Your task to perform on an android device: Add "razer thresher" to the cart on amazon.com Image 0: 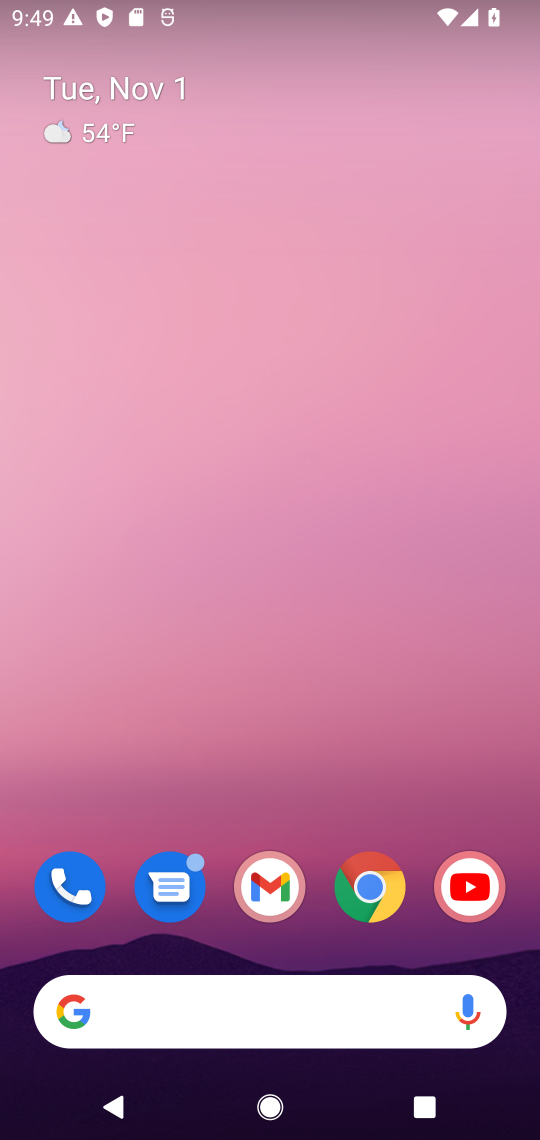
Step 0: drag from (265, 937) to (307, 210)
Your task to perform on an android device: Add "razer thresher" to the cart on amazon.com Image 1: 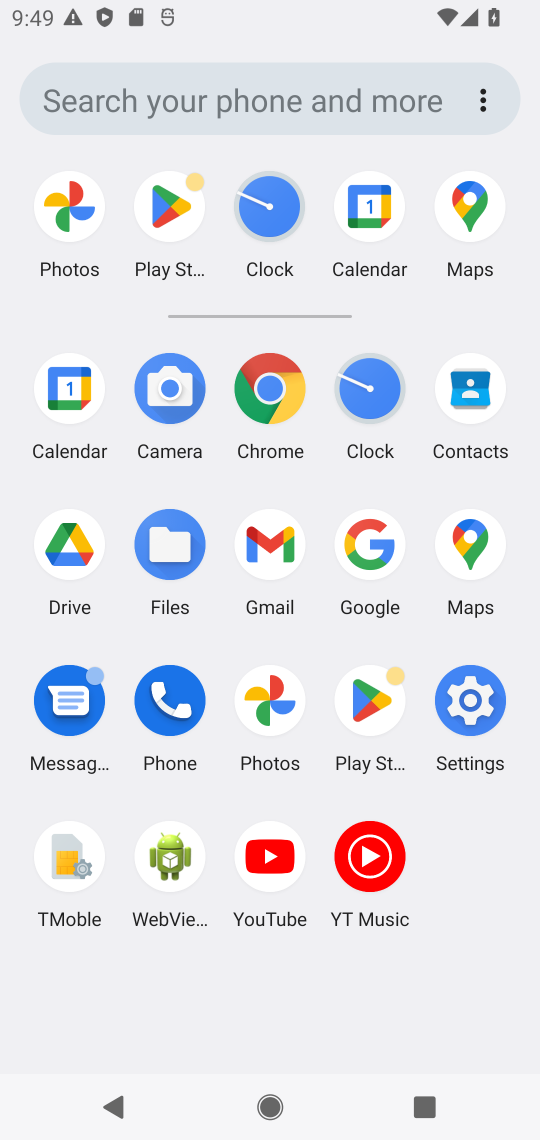
Step 1: click (359, 531)
Your task to perform on an android device: Add "razer thresher" to the cart on amazon.com Image 2: 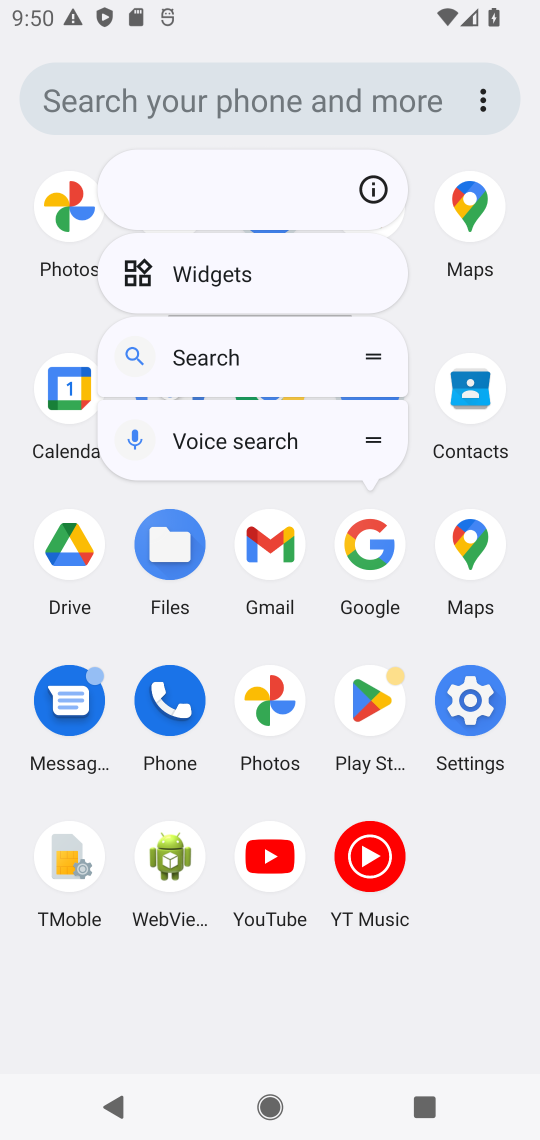
Step 2: click (379, 518)
Your task to perform on an android device: Add "razer thresher" to the cart on amazon.com Image 3: 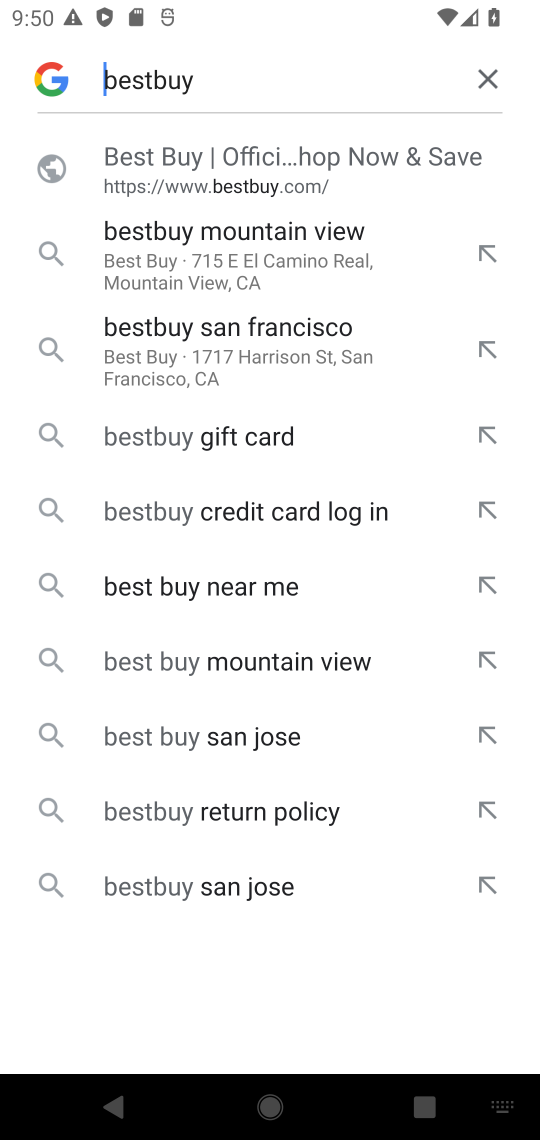
Step 3: click (485, 87)
Your task to perform on an android device: Add "razer thresher" to the cart on amazon.com Image 4: 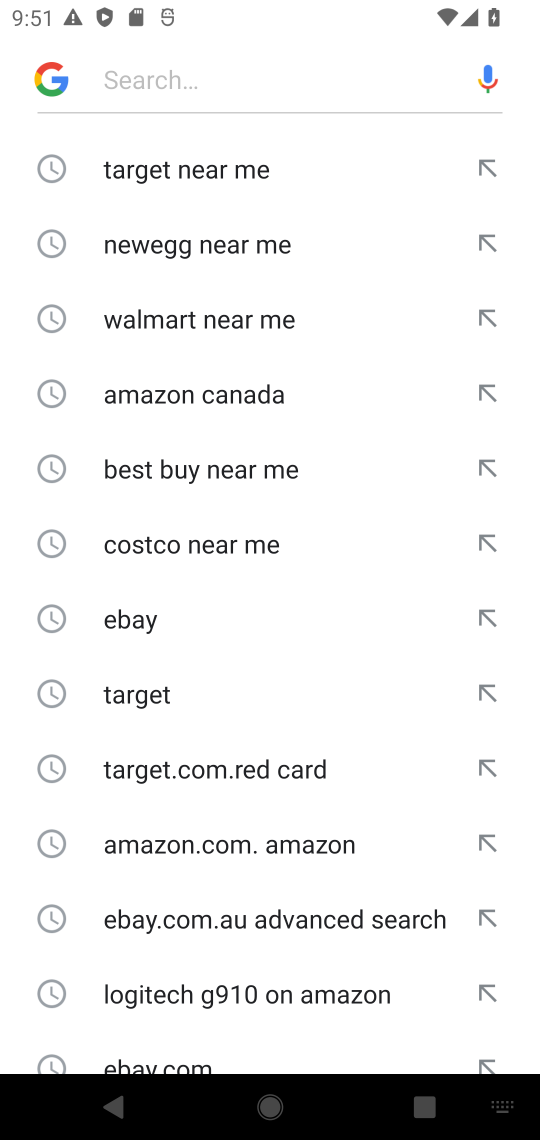
Step 4: click (204, 397)
Your task to perform on an android device: Add "razer thresher" to the cart on amazon.com Image 5: 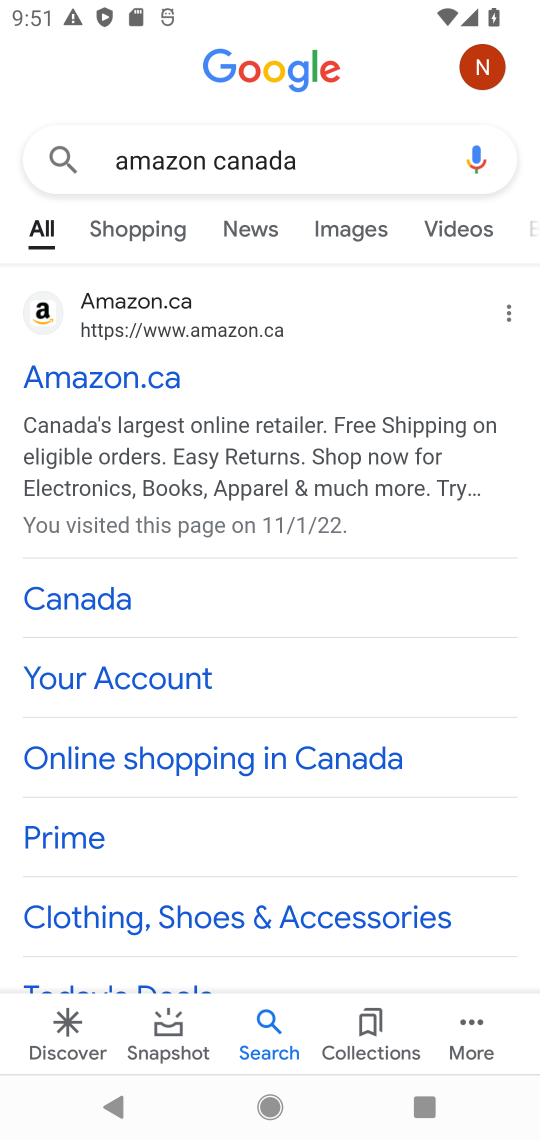
Step 5: click (47, 368)
Your task to perform on an android device: Add "razer thresher" to the cart on amazon.com Image 6: 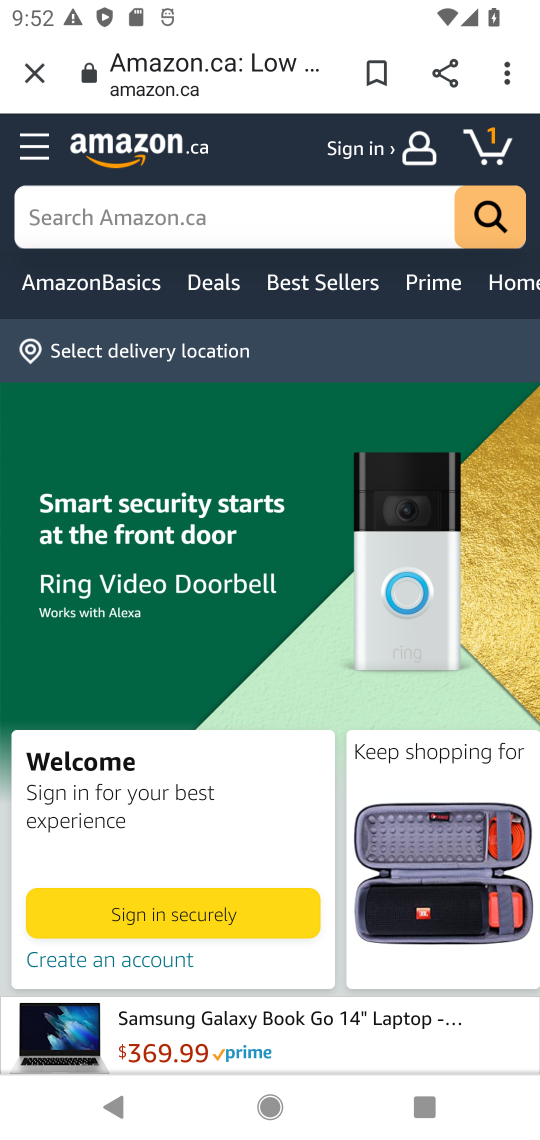
Step 6: click (237, 214)
Your task to perform on an android device: Add "razer thresher" to the cart on amazon.com Image 7: 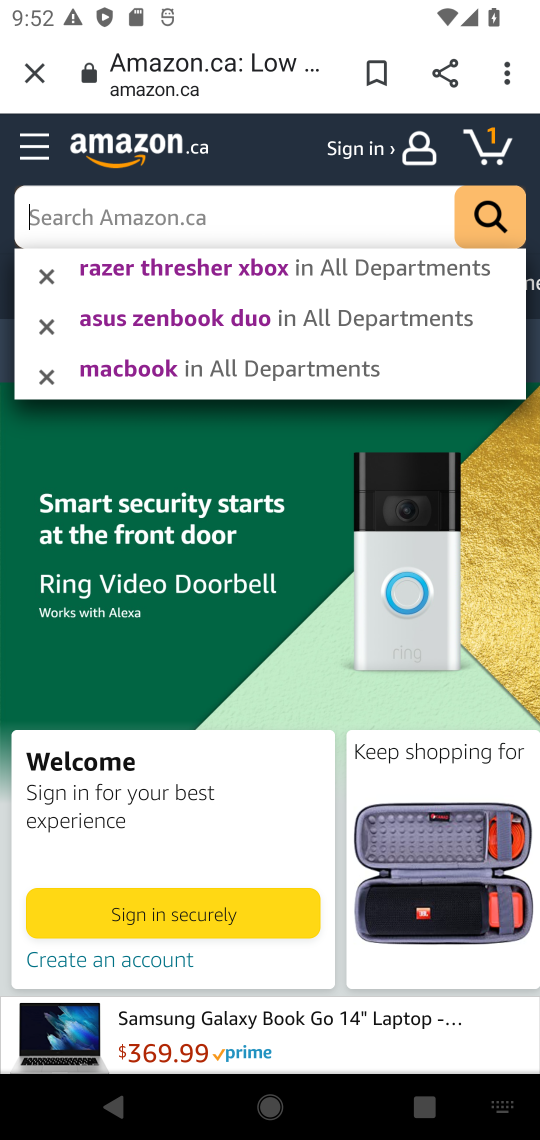
Step 7: type "razer thresher "
Your task to perform on an android device: Add "razer thresher" to the cart on amazon.com Image 8: 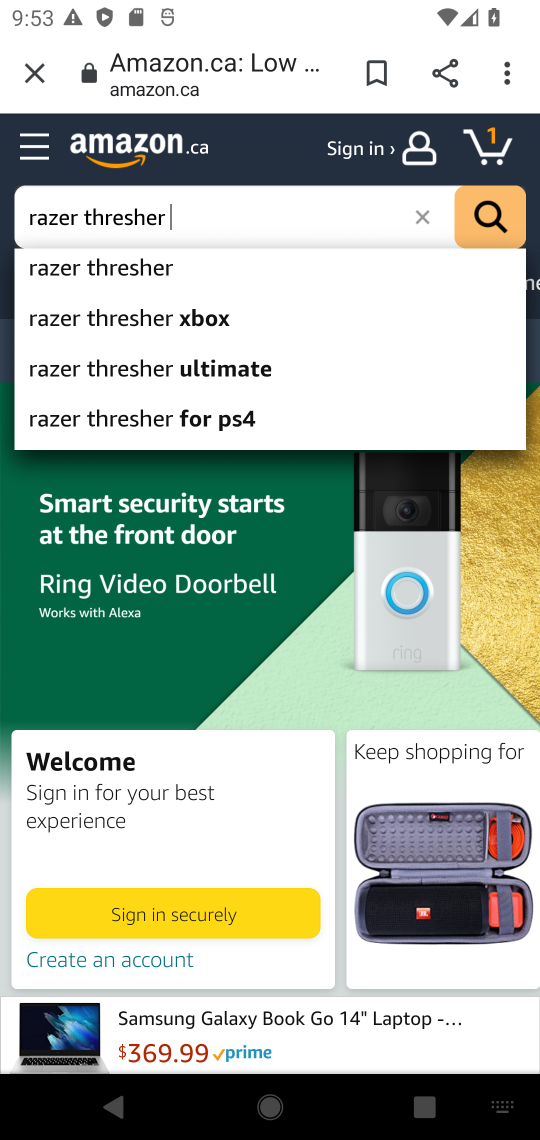
Step 8: click (83, 252)
Your task to perform on an android device: Add "razer thresher" to the cart on amazon.com Image 9: 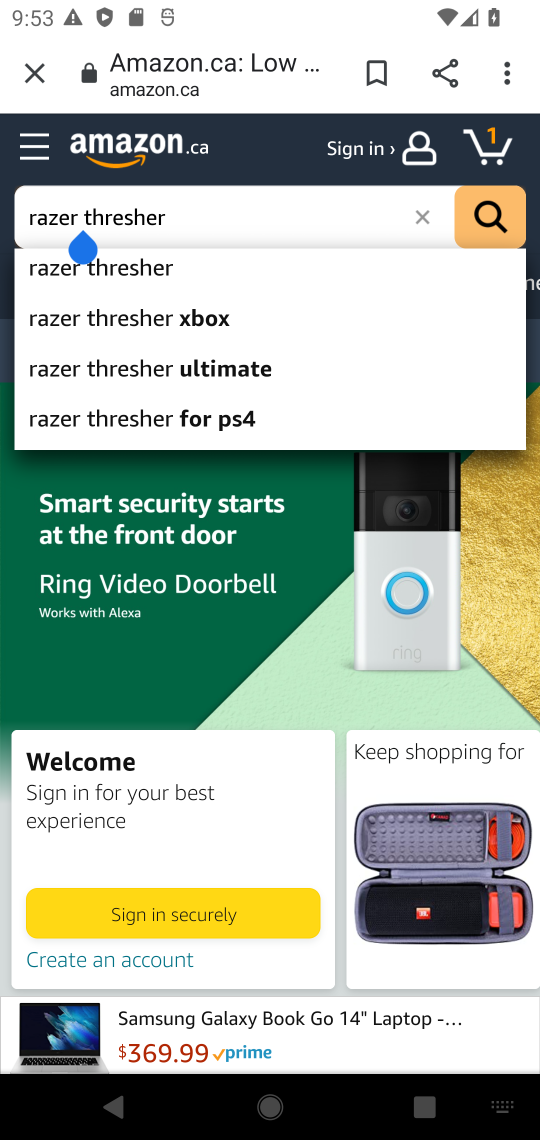
Step 9: click (95, 267)
Your task to perform on an android device: Add "razer thresher" to the cart on amazon.com Image 10: 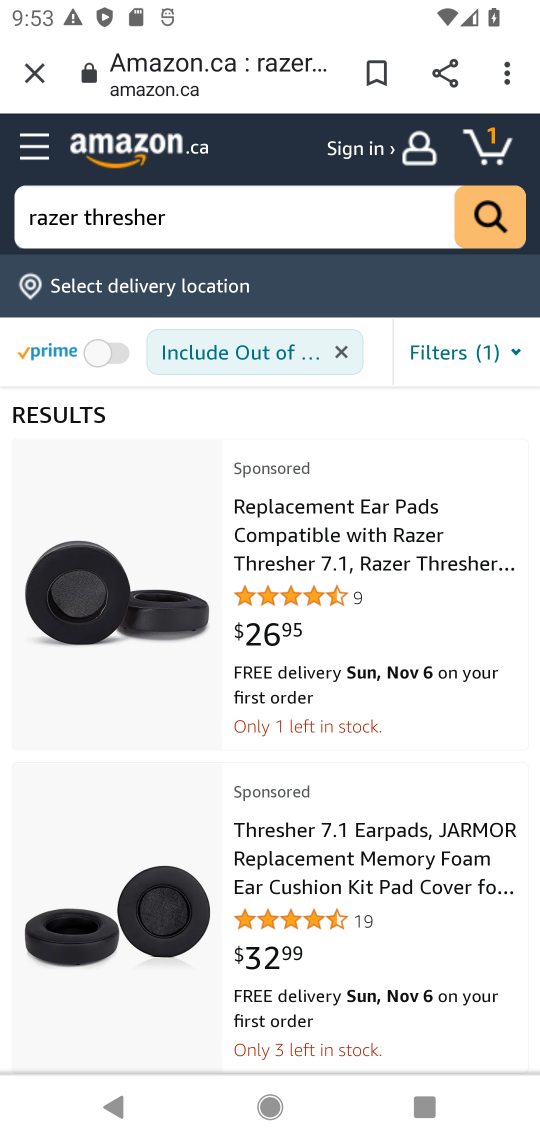
Step 10: click (286, 571)
Your task to perform on an android device: Add "razer thresher" to the cart on amazon.com Image 11: 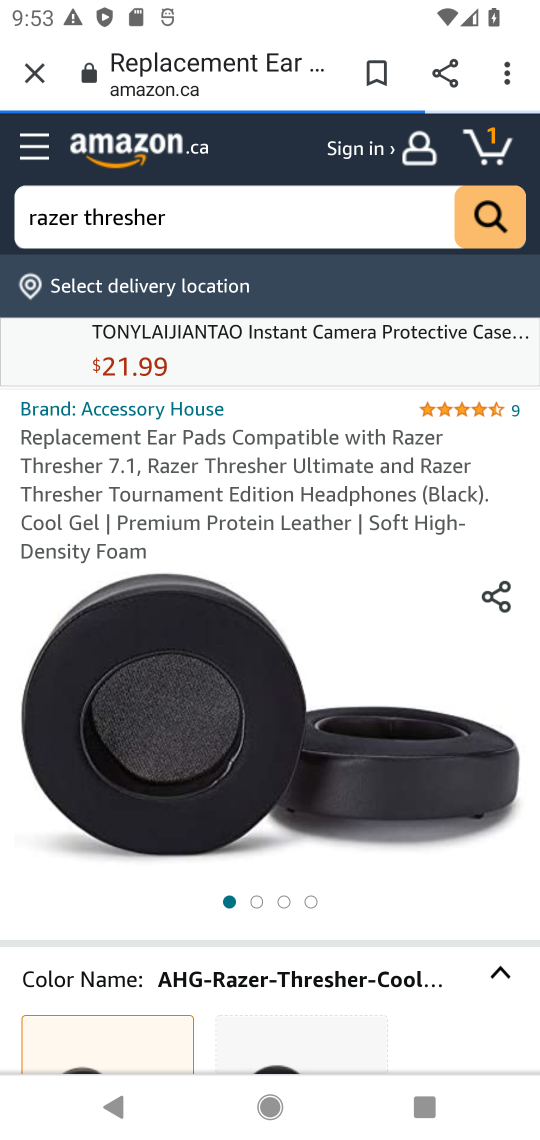
Step 11: drag from (303, 899) to (319, 367)
Your task to perform on an android device: Add "razer thresher" to the cart on amazon.com Image 12: 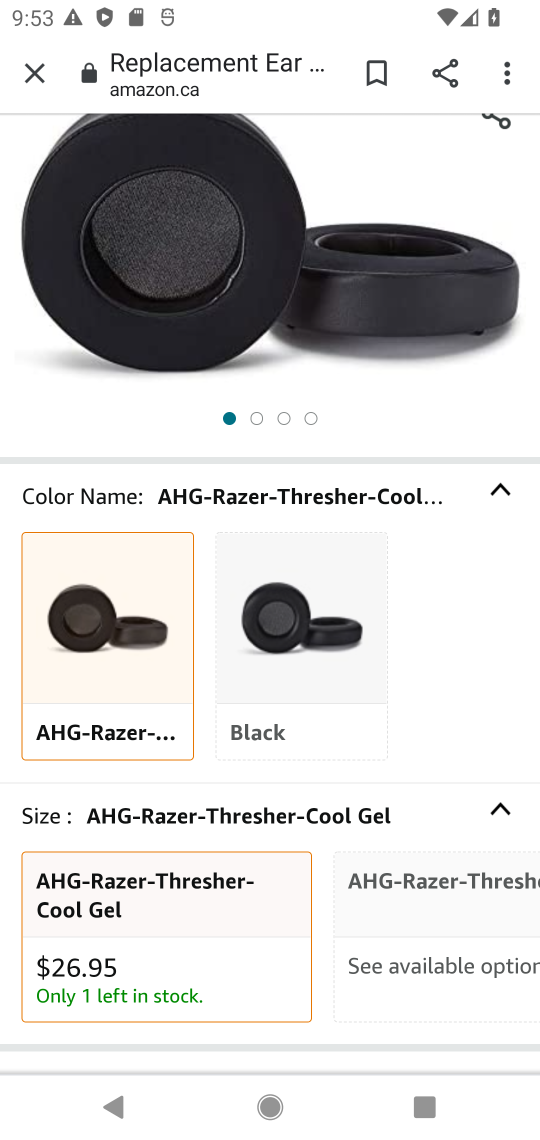
Step 12: drag from (363, 986) to (363, 336)
Your task to perform on an android device: Add "razer thresher" to the cart on amazon.com Image 13: 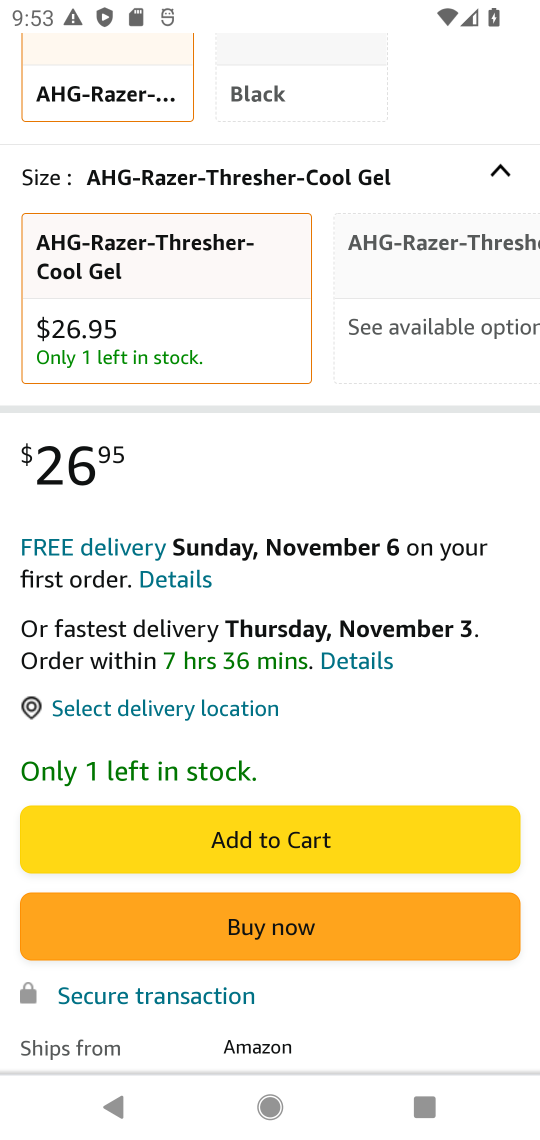
Step 13: drag from (293, 983) to (341, 628)
Your task to perform on an android device: Add "razer thresher" to the cart on amazon.com Image 14: 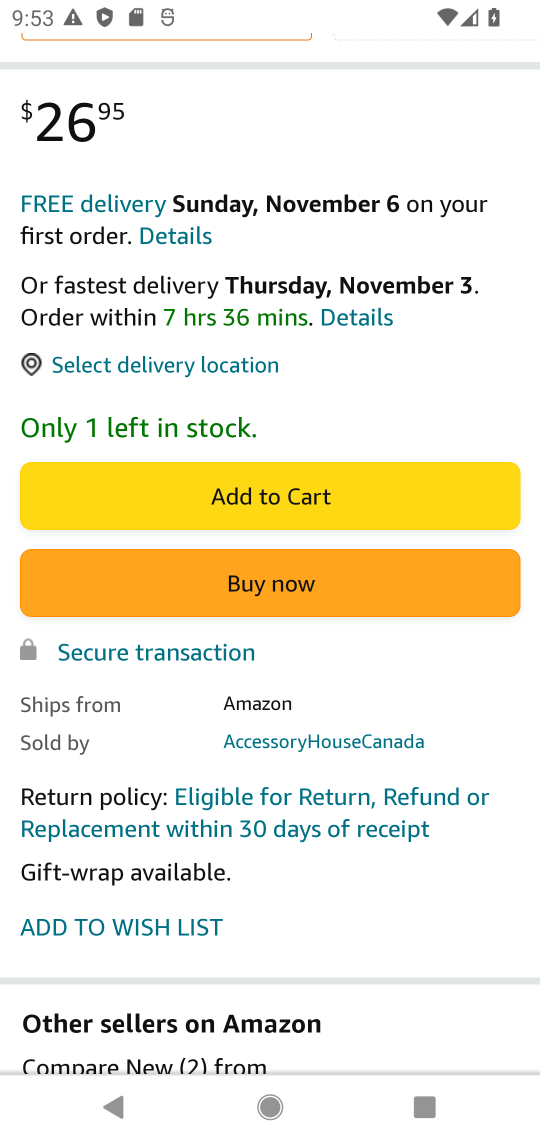
Step 14: click (299, 481)
Your task to perform on an android device: Add "razer thresher" to the cart on amazon.com Image 15: 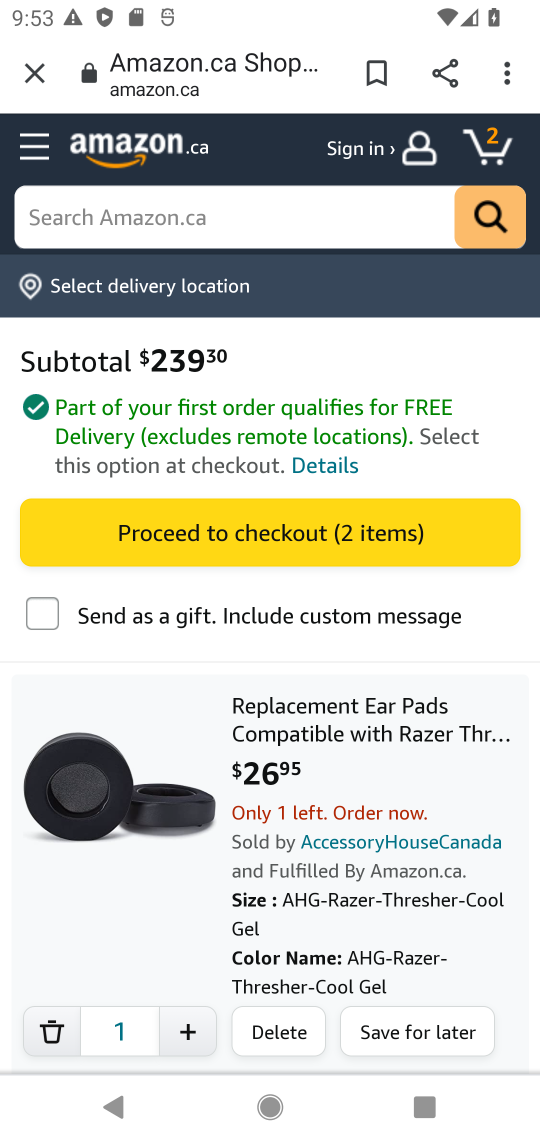
Step 15: task complete